Your task to perform on an android device: Go to Wikipedia Image 0: 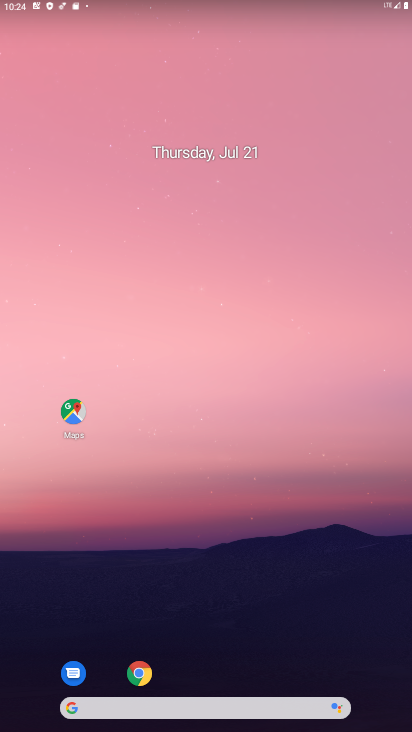
Step 0: click (145, 675)
Your task to perform on an android device: Go to Wikipedia Image 1: 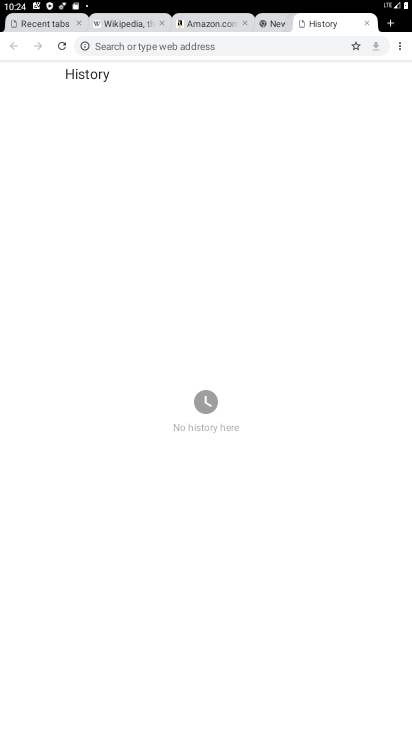
Step 1: click (385, 24)
Your task to perform on an android device: Go to Wikipedia Image 2: 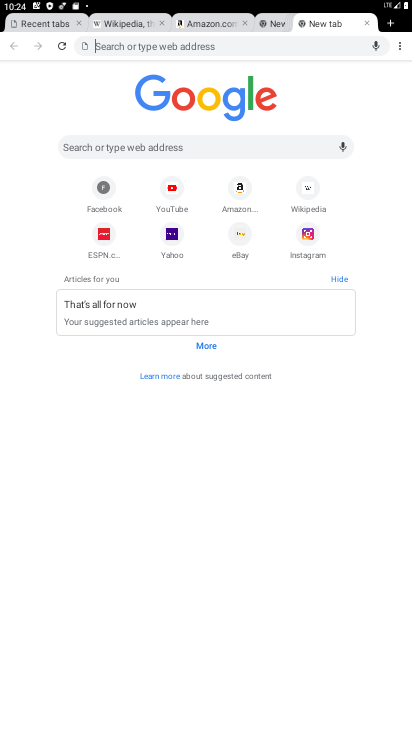
Step 2: click (310, 196)
Your task to perform on an android device: Go to Wikipedia Image 3: 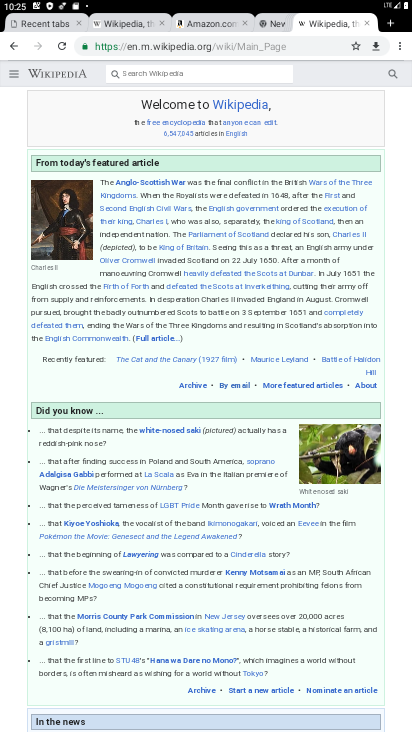
Step 3: task complete